Your task to perform on an android device: change the clock display to analog Image 0: 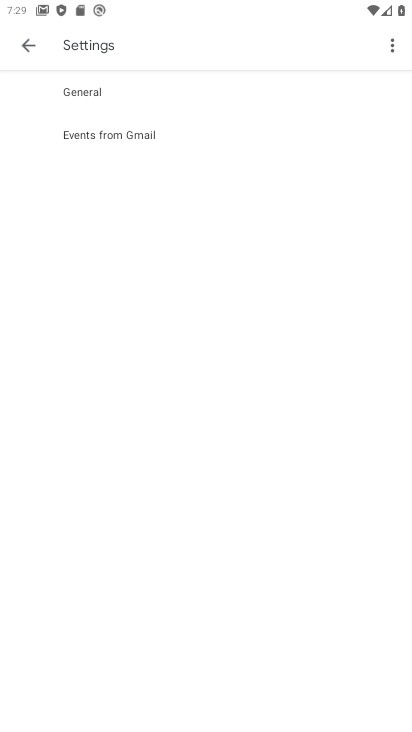
Step 0: press home button
Your task to perform on an android device: change the clock display to analog Image 1: 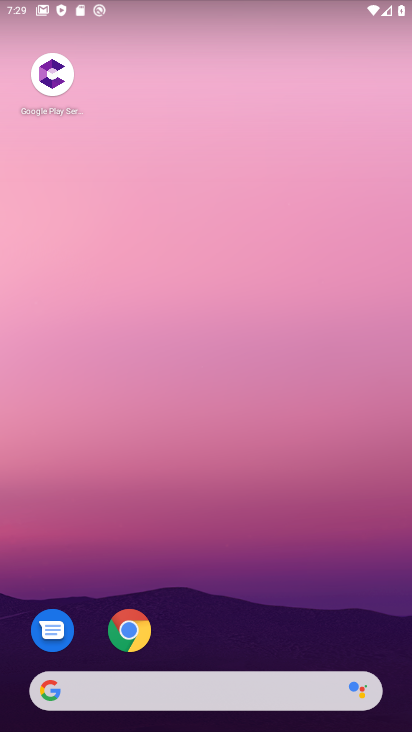
Step 1: drag from (117, 624) to (146, 58)
Your task to perform on an android device: change the clock display to analog Image 2: 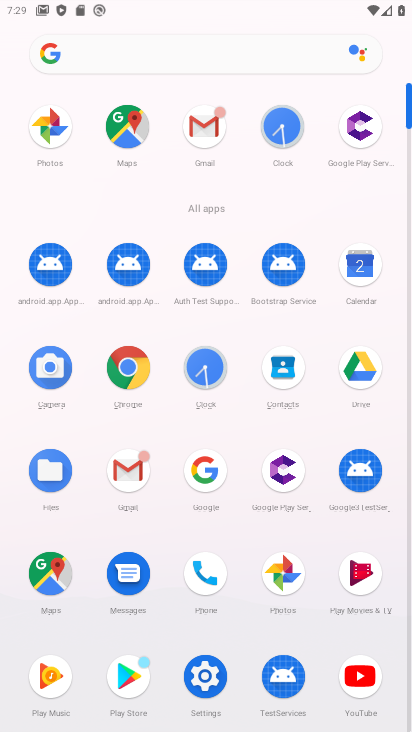
Step 2: click (273, 134)
Your task to perform on an android device: change the clock display to analog Image 3: 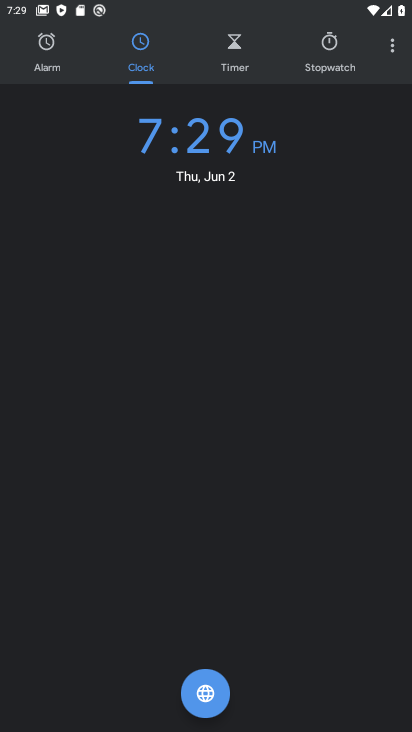
Step 3: click (396, 50)
Your task to perform on an android device: change the clock display to analog Image 4: 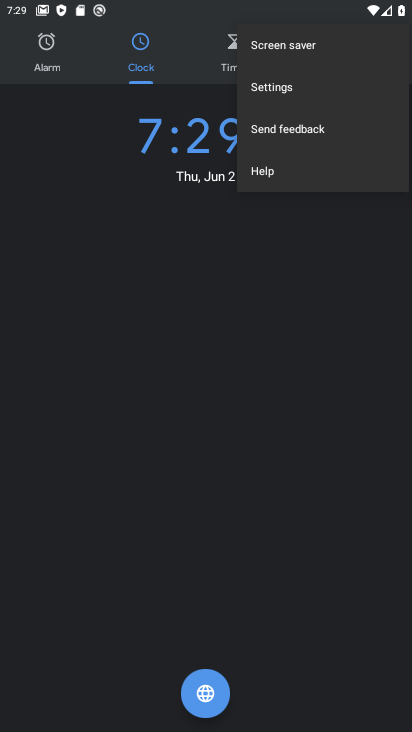
Step 4: click (339, 99)
Your task to perform on an android device: change the clock display to analog Image 5: 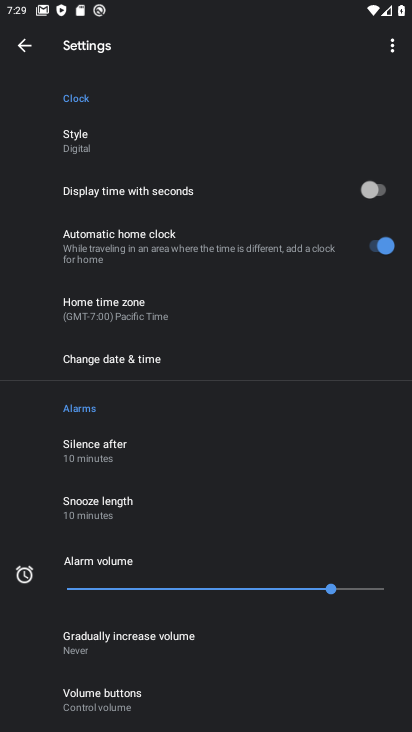
Step 5: click (123, 159)
Your task to perform on an android device: change the clock display to analog Image 6: 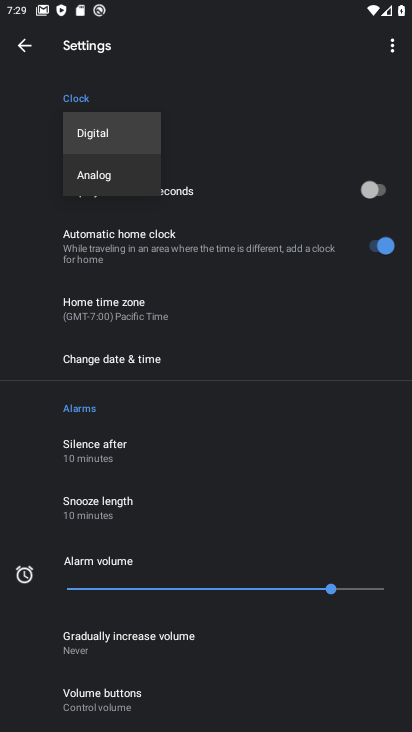
Step 6: click (117, 180)
Your task to perform on an android device: change the clock display to analog Image 7: 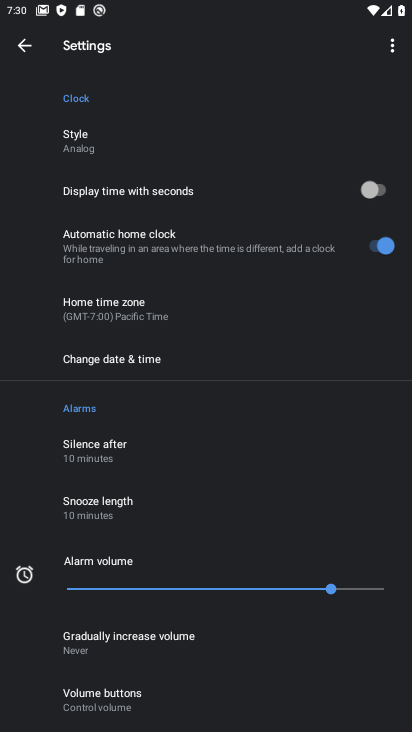
Step 7: task complete